Your task to perform on an android device: turn on priority inbox in the gmail app Image 0: 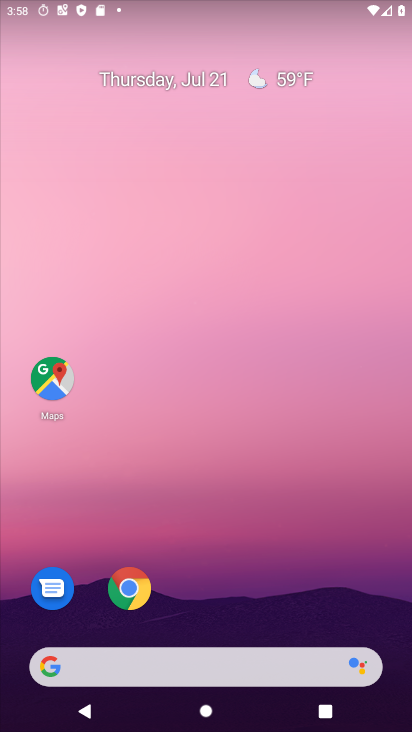
Step 0: drag from (238, 627) to (242, 93)
Your task to perform on an android device: turn on priority inbox in the gmail app Image 1: 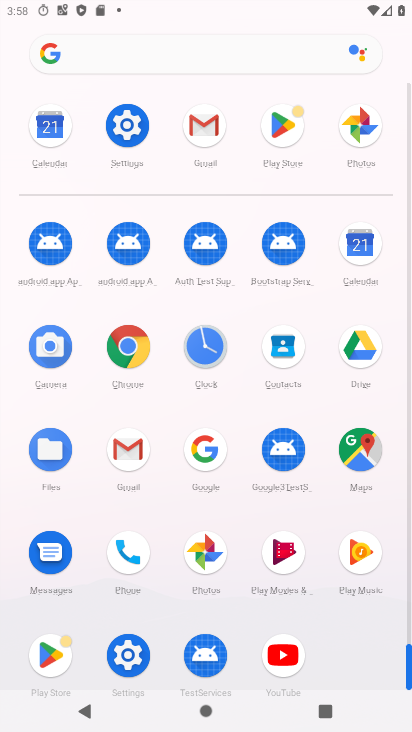
Step 1: click (123, 470)
Your task to perform on an android device: turn on priority inbox in the gmail app Image 2: 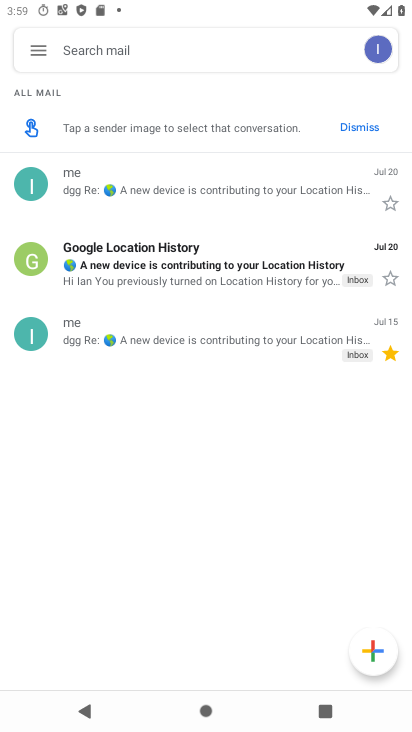
Step 2: click (35, 44)
Your task to perform on an android device: turn on priority inbox in the gmail app Image 3: 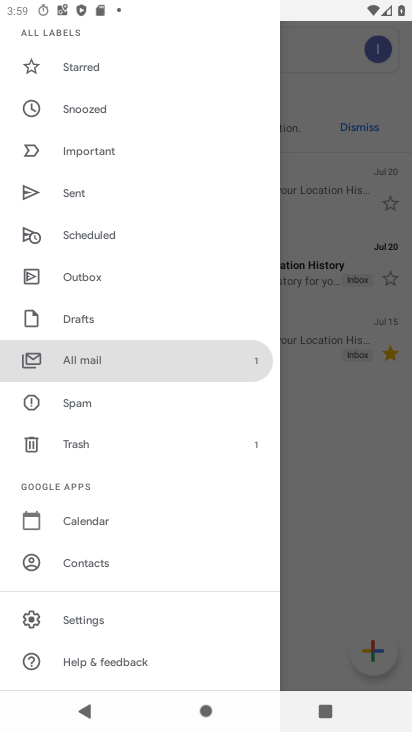
Step 3: click (85, 622)
Your task to perform on an android device: turn on priority inbox in the gmail app Image 4: 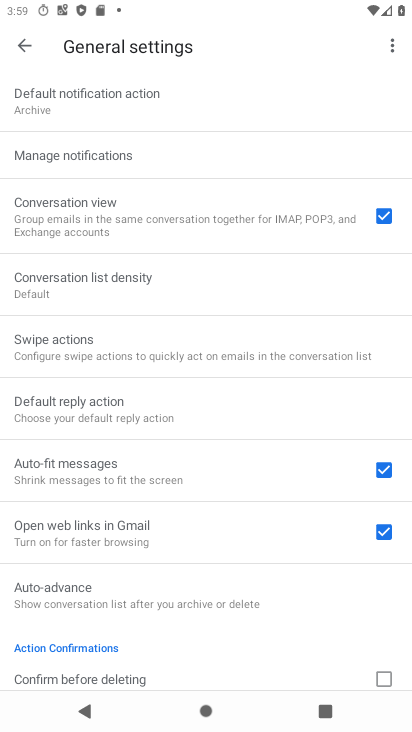
Step 4: click (18, 45)
Your task to perform on an android device: turn on priority inbox in the gmail app Image 5: 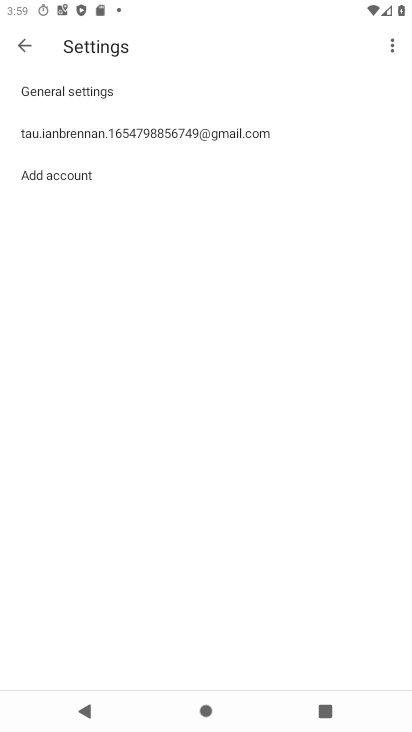
Step 5: click (68, 140)
Your task to perform on an android device: turn on priority inbox in the gmail app Image 6: 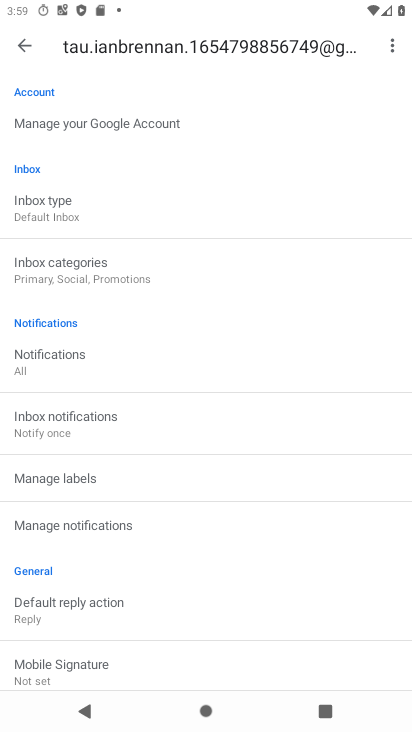
Step 6: click (72, 212)
Your task to perform on an android device: turn on priority inbox in the gmail app Image 7: 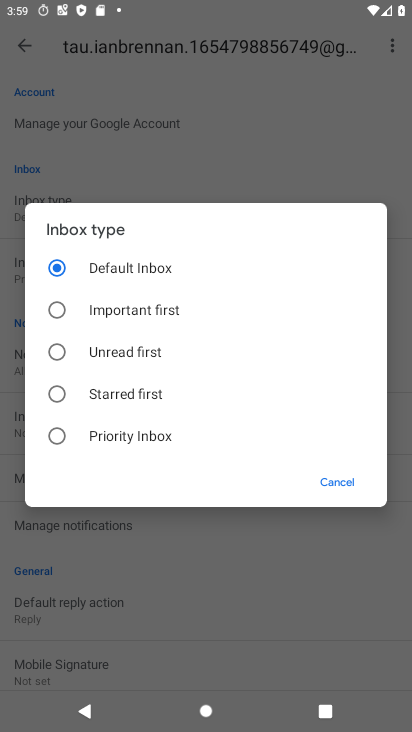
Step 7: click (113, 441)
Your task to perform on an android device: turn on priority inbox in the gmail app Image 8: 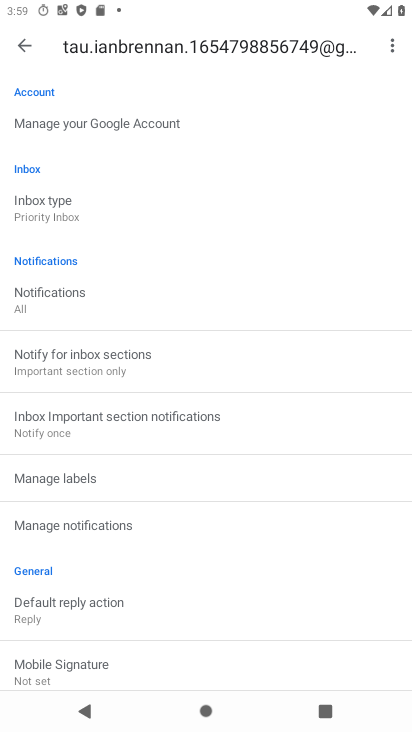
Step 8: task complete